Your task to perform on an android device: open app "Spotify: Music and Podcasts" (install if not already installed) and enter user name: "principled@inbox.com" and password: "arrests" Image 0: 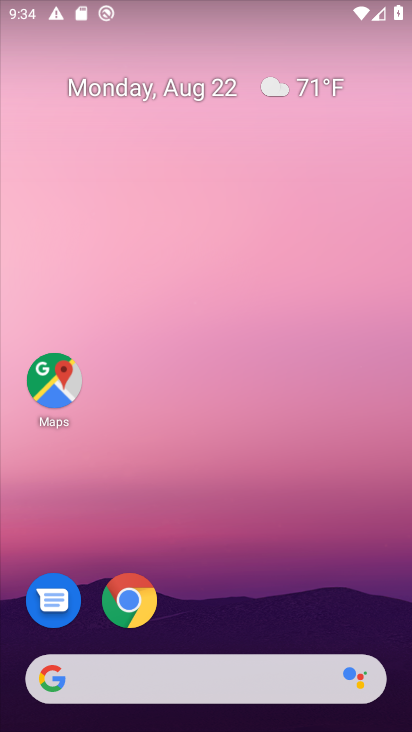
Step 0: drag from (207, 523) to (226, 271)
Your task to perform on an android device: open app "Spotify: Music and Podcasts" (install if not already installed) and enter user name: "principled@inbox.com" and password: "arrests" Image 1: 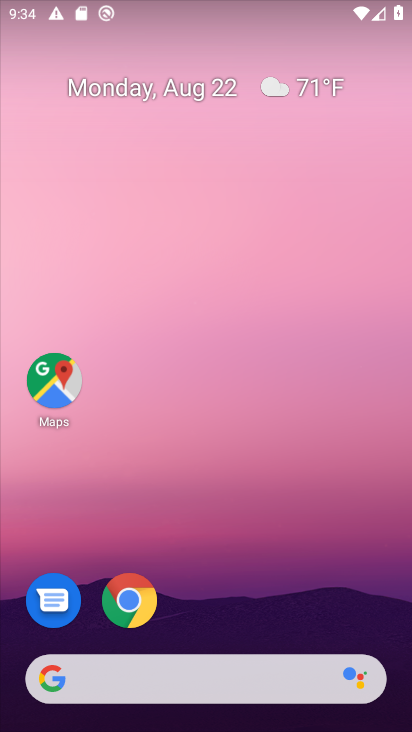
Step 1: drag from (214, 554) to (261, 49)
Your task to perform on an android device: open app "Spotify: Music and Podcasts" (install if not already installed) and enter user name: "principled@inbox.com" and password: "arrests" Image 2: 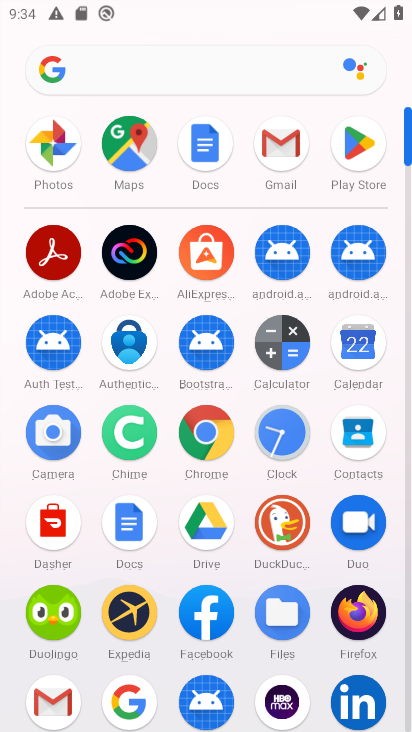
Step 2: click (354, 126)
Your task to perform on an android device: open app "Spotify: Music and Podcasts" (install if not already installed) and enter user name: "principled@inbox.com" and password: "arrests" Image 3: 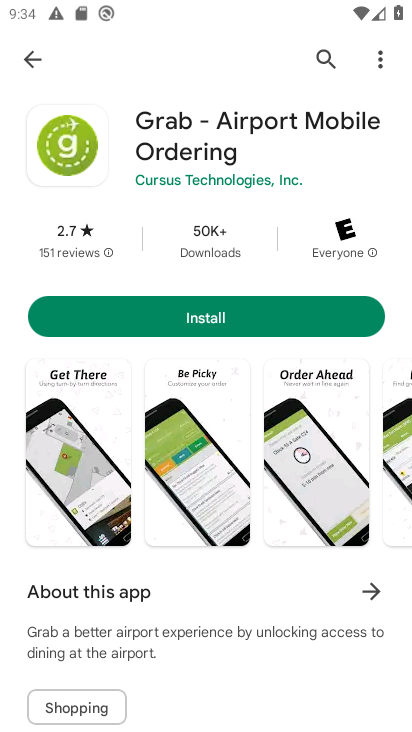
Step 3: click (329, 58)
Your task to perform on an android device: open app "Spotify: Music and Podcasts" (install if not already installed) and enter user name: "principled@inbox.com" and password: "arrests" Image 4: 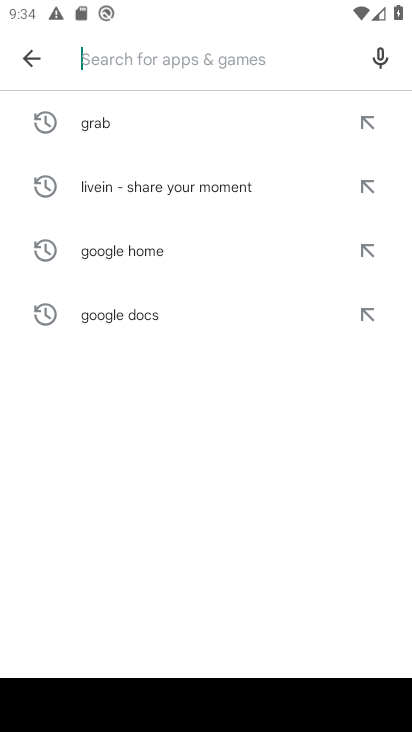
Step 4: type "Spotify: Music and Podcasts"
Your task to perform on an android device: open app "Spotify: Music and Podcasts" (install if not already installed) and enter user name: "principled@inbox.com" and password: "arrests" Image 5: 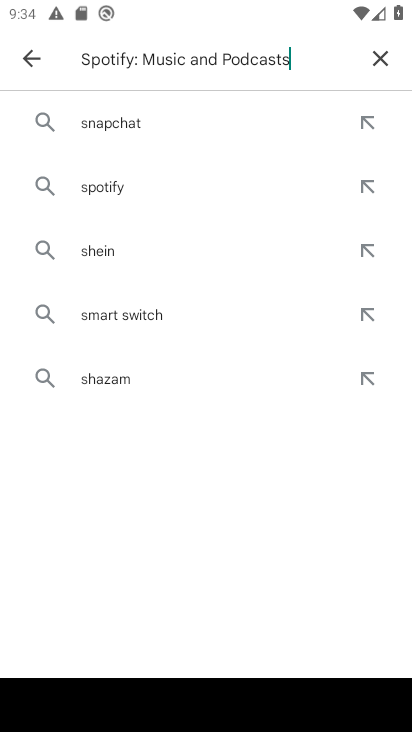
Step 5: type ""
Your task to perform on an android device: open app "Spotify: Music and Podcasts" (install if not already installed) and enter user name: "principled@inbox.com" and password: "arrests" Image 6: 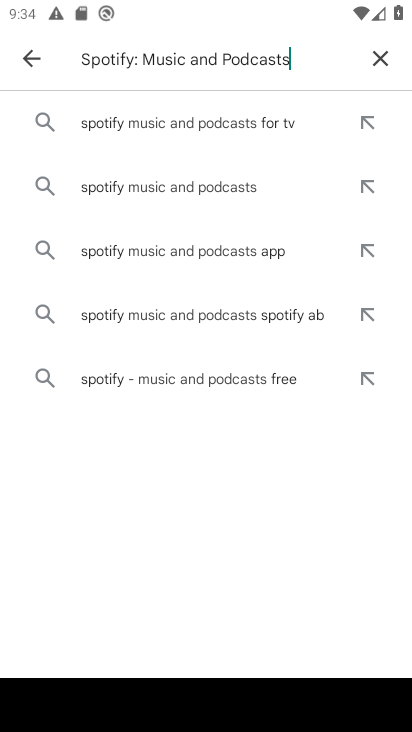
Step 6: click (113, 122)
Your task to perform on an android device: open app "Spotify: Music and Podcasts" (install if not already installed) and enter user name: "principled@inbox.com" and password: "arrests" Image 7: 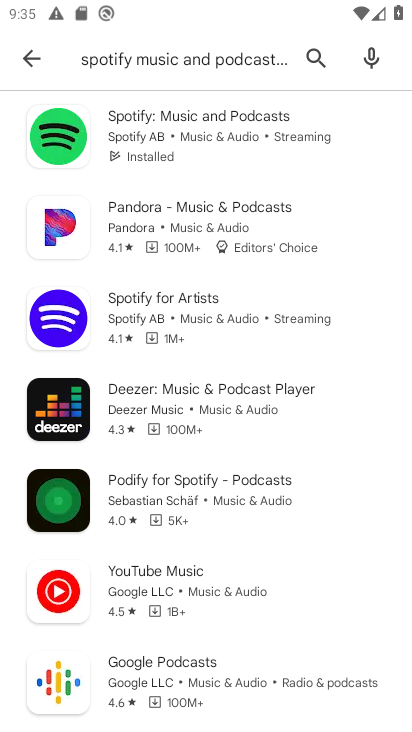
Step 7: click (169, 125)
Your task to perform on an android device: open app "Spotify: Music and Podcasts" (install if not already installed) and enter user name: "principled@inbox.com" and password: "arrests" Image 8: 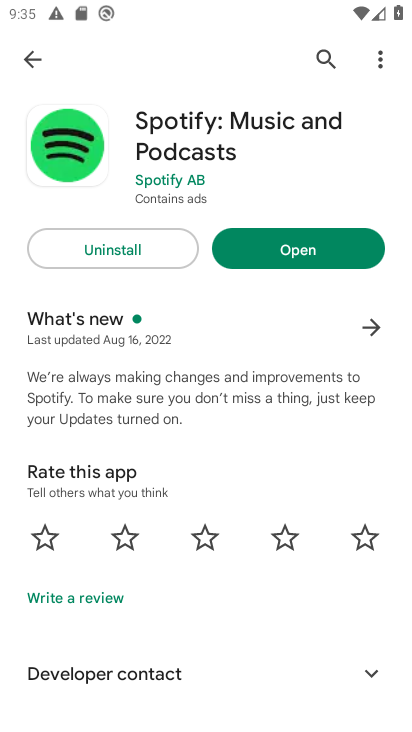
Step 8: click (263, 234)
Your task to perform on an android device: open app "Spotify: Music and Podcasts" (install if not already installed) and enter user name: "principled@inbox.com" and password: "arrests" Image 9: 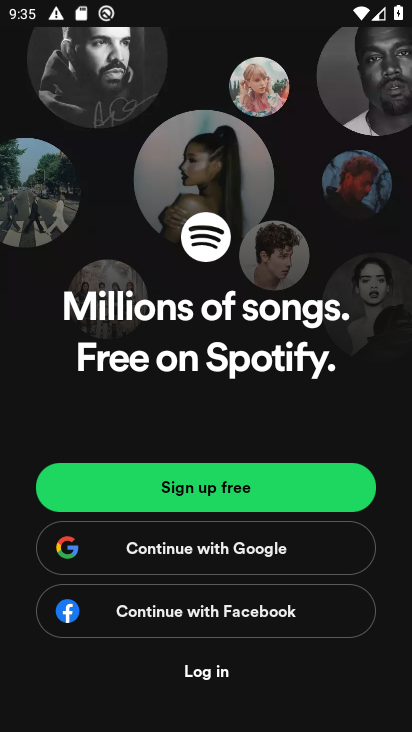
Step 9: task complete